Your task to perform on an android device: turn off javascript in the chrome app Image 0: 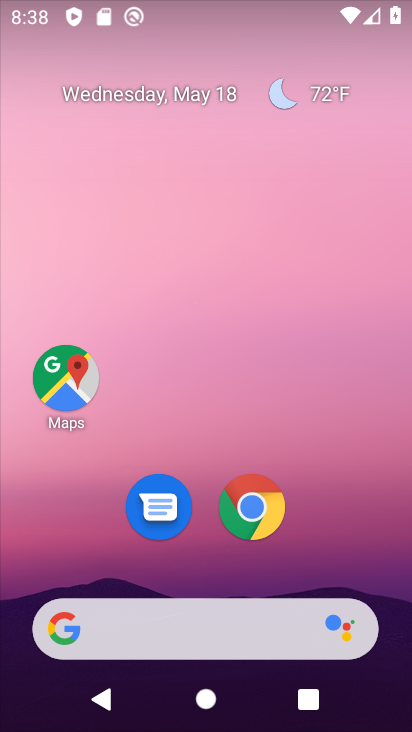
Step 0: click (238, 512)
Your task to perform on an android device: turn off javascript in the chrome app Image 1: 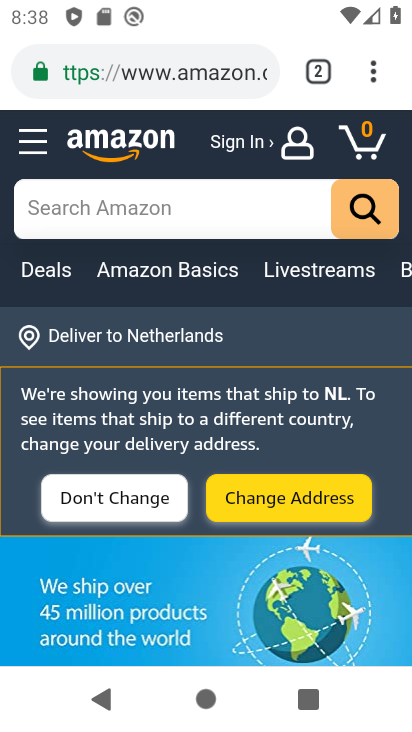
Step 1: click (367, 71)
Your task to perform on an android device: turn off javascript in the chrome app Image 2: 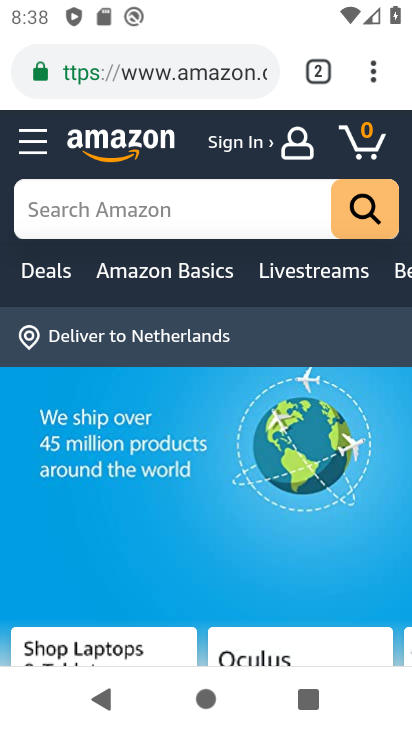
Step 2: drag from (372, 71) to (123, 490)
Your task to perform on an android device: turn off javascript in the chrome app Image 3: 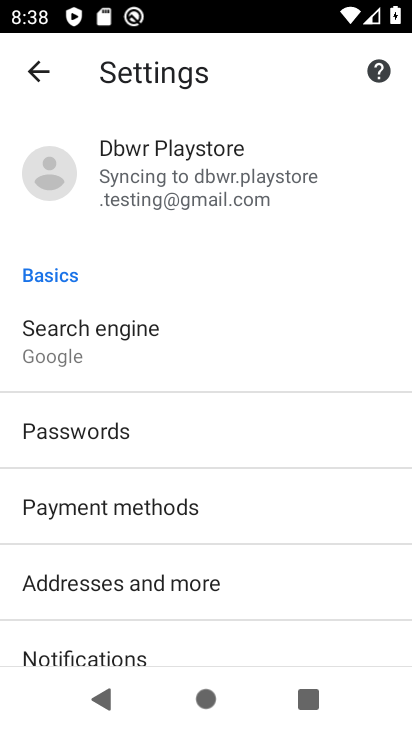
Step 3: drag from (274, 594) to (385, 263)
Your task to perform on an android device: turn off javascript in the chrome app Image 4: 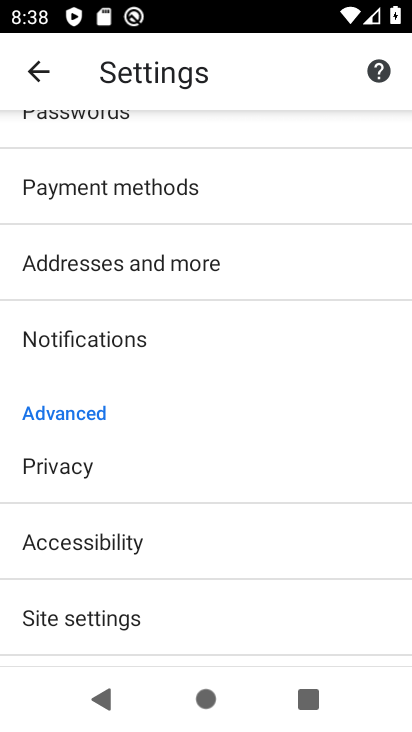
Step 4: click (64, 612)
Your task to perform on an android device: turn off javascript in the chrome app Image 5: 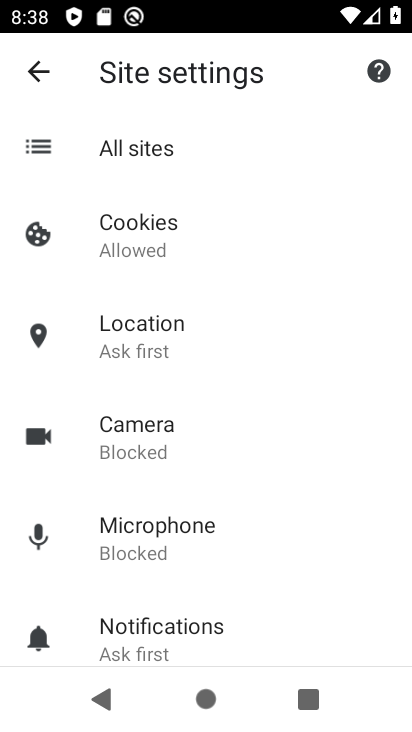
Step 5: drag from (263, 619) to (292, 253)
Your task to perform on an android device: turn off javascript in the chrome app Image 6: 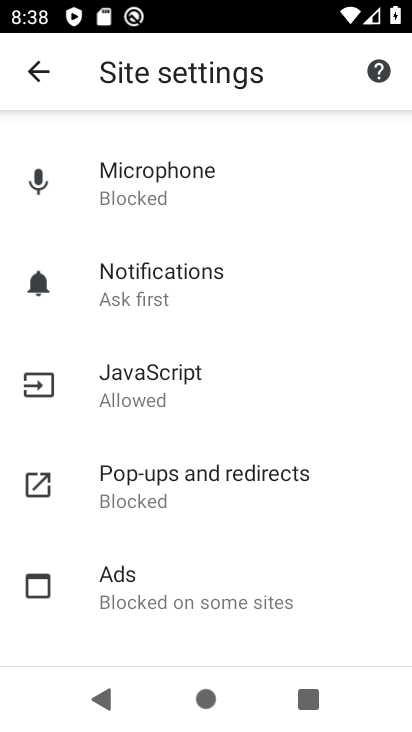
Step 6: click (139, 381)
Your task to perform on an android device: turn off javascript in the chrome app Image 7: 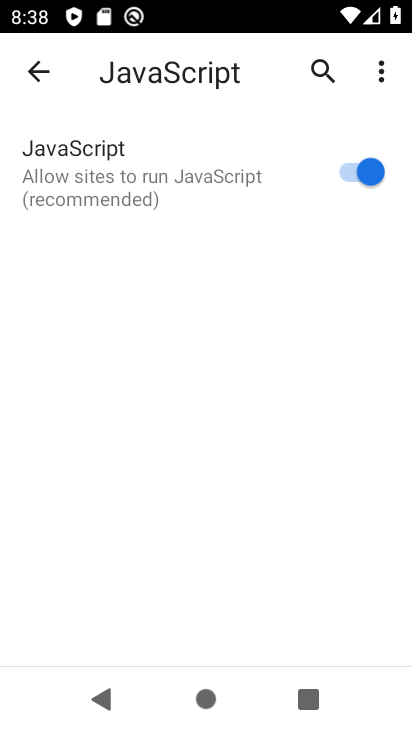
Step 7: click (369, 166)
Your task to perform on an android device: turn off javascript in the chrome app Image 8: 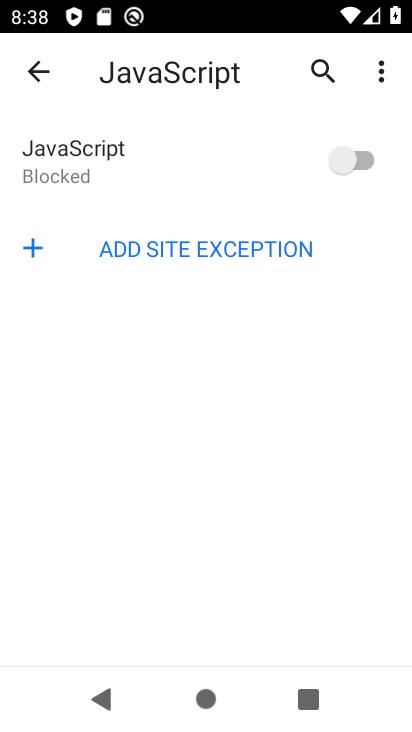
Step 8: task complete